Your task to perform on an android device: change the clock display to analog Image 0: 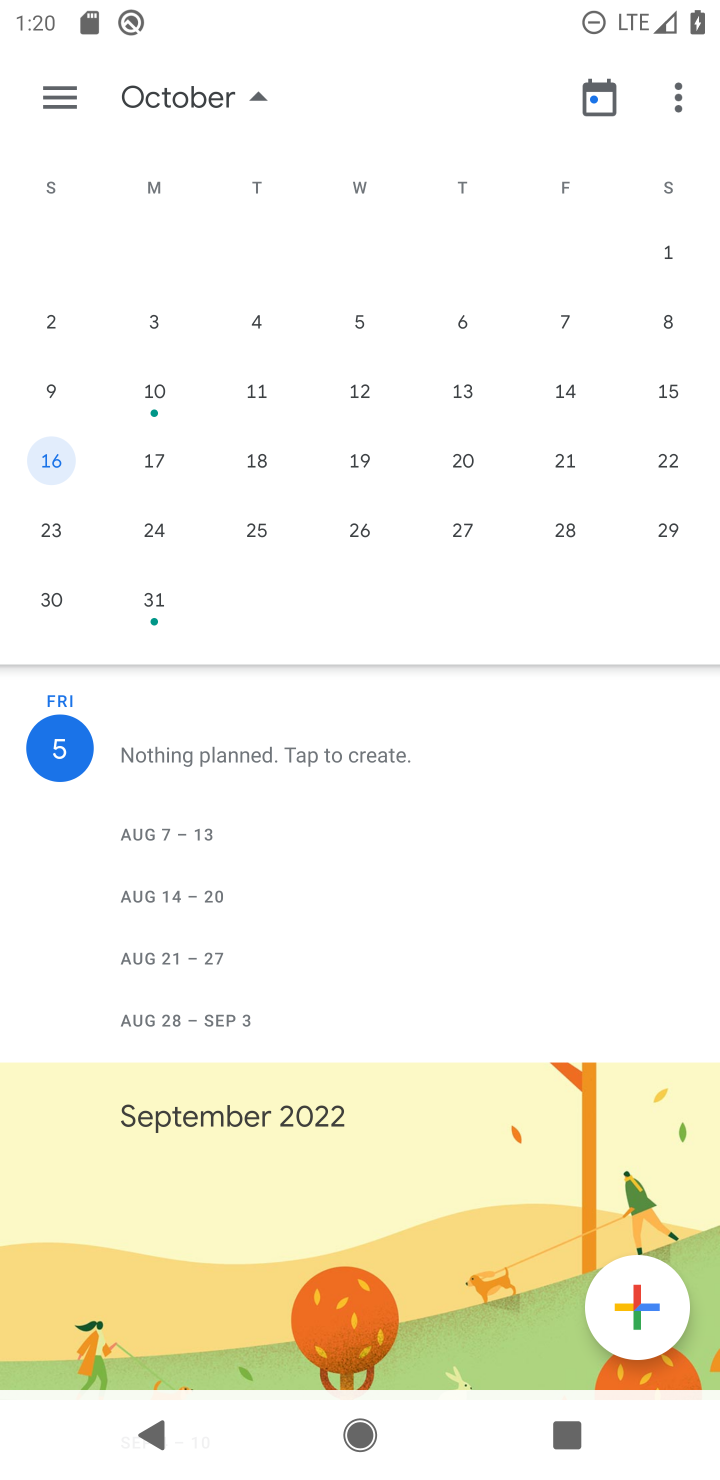
Step 0: press home button
Your task to perform on an android device: change the clock display to analog Image 1: 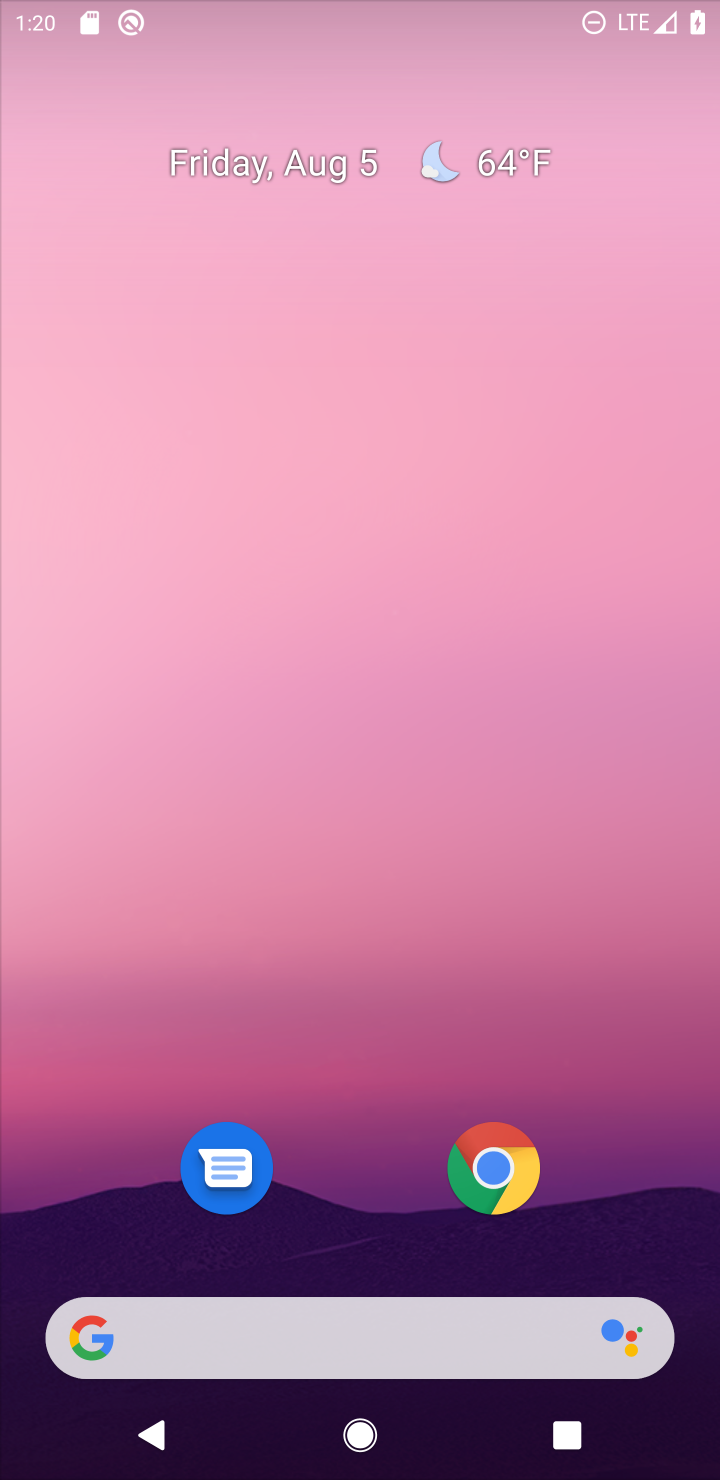
Step 1: drag from (642, 1234) to (300, 70)
Your task to perform on an android device: change the clock display to analog Image 2: 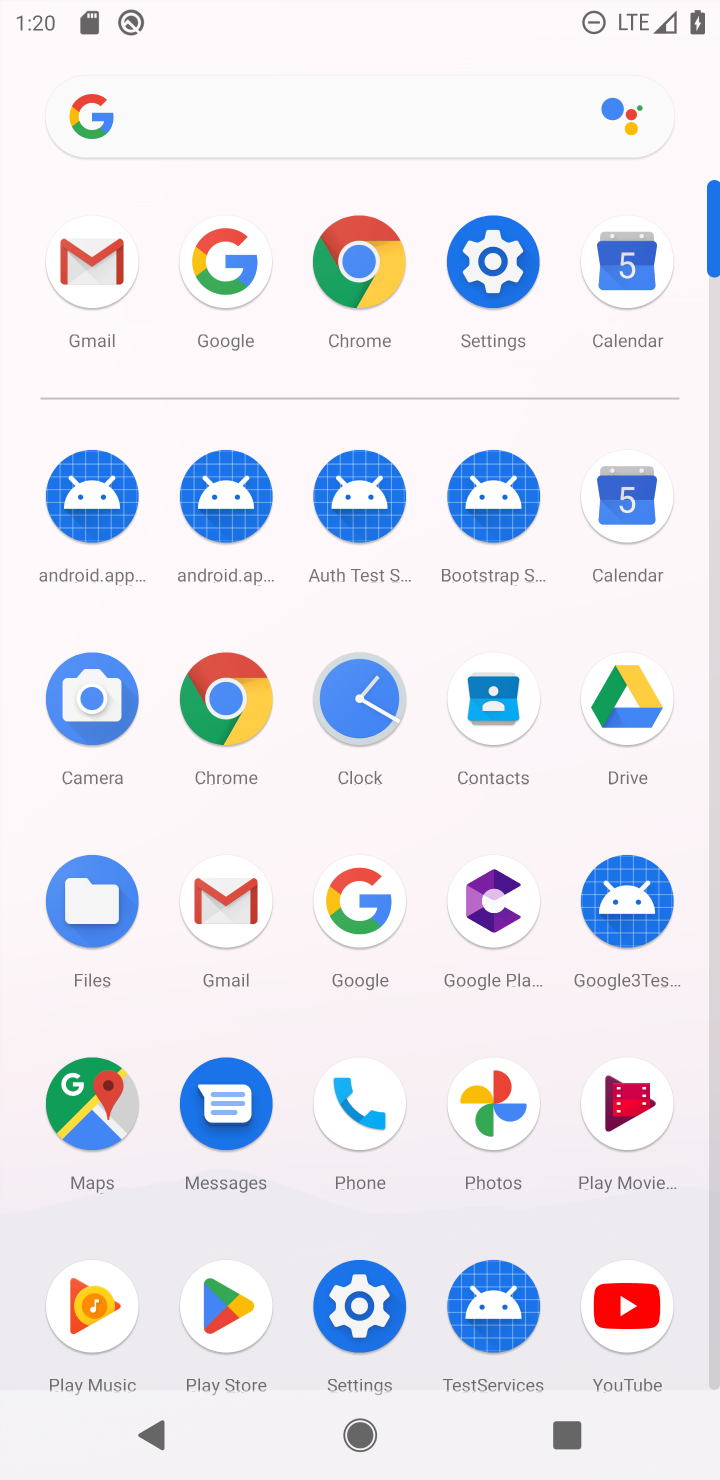
Step 2: click (356, 704)
Your task to perform on an android device: change the clock display to analog Image 3: 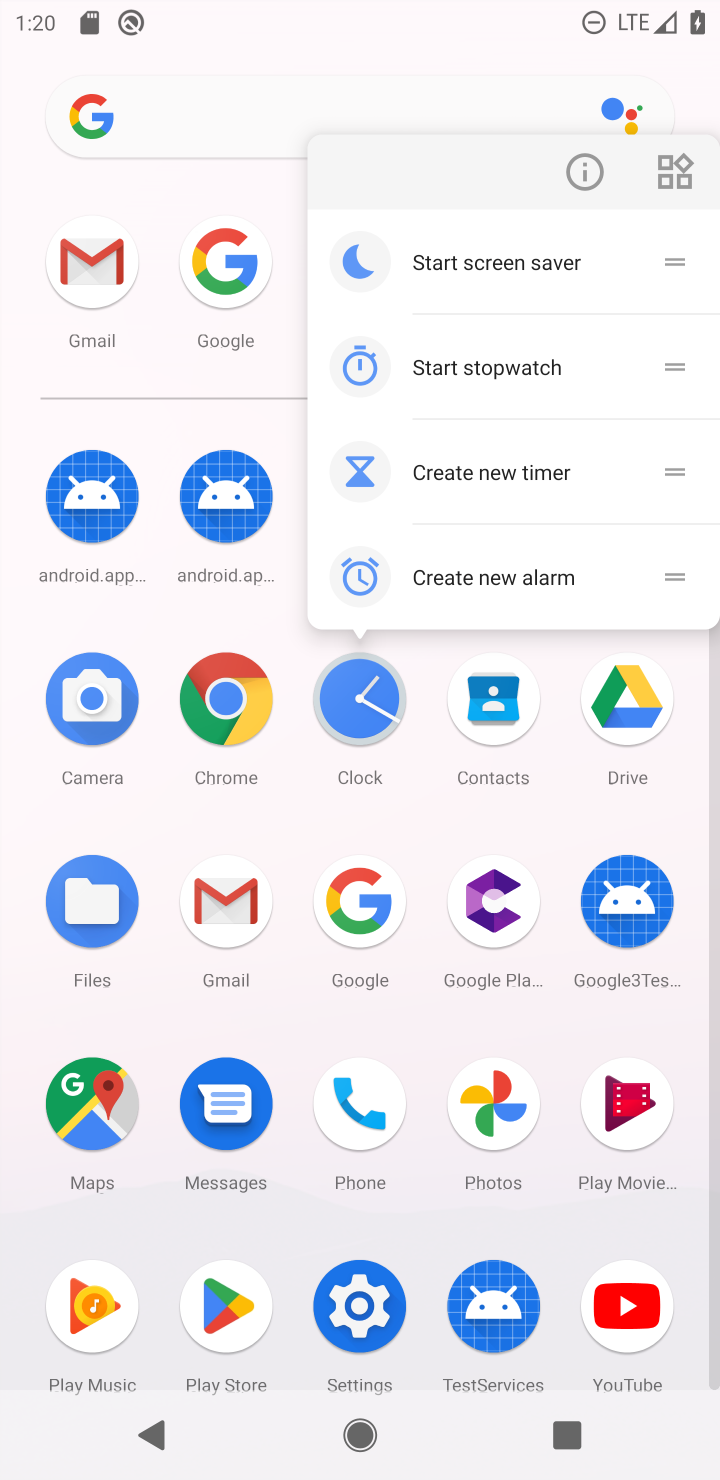
Step 3: click (356, 704)
Your task to perform on an android device: change the clock display to analog Image 4: 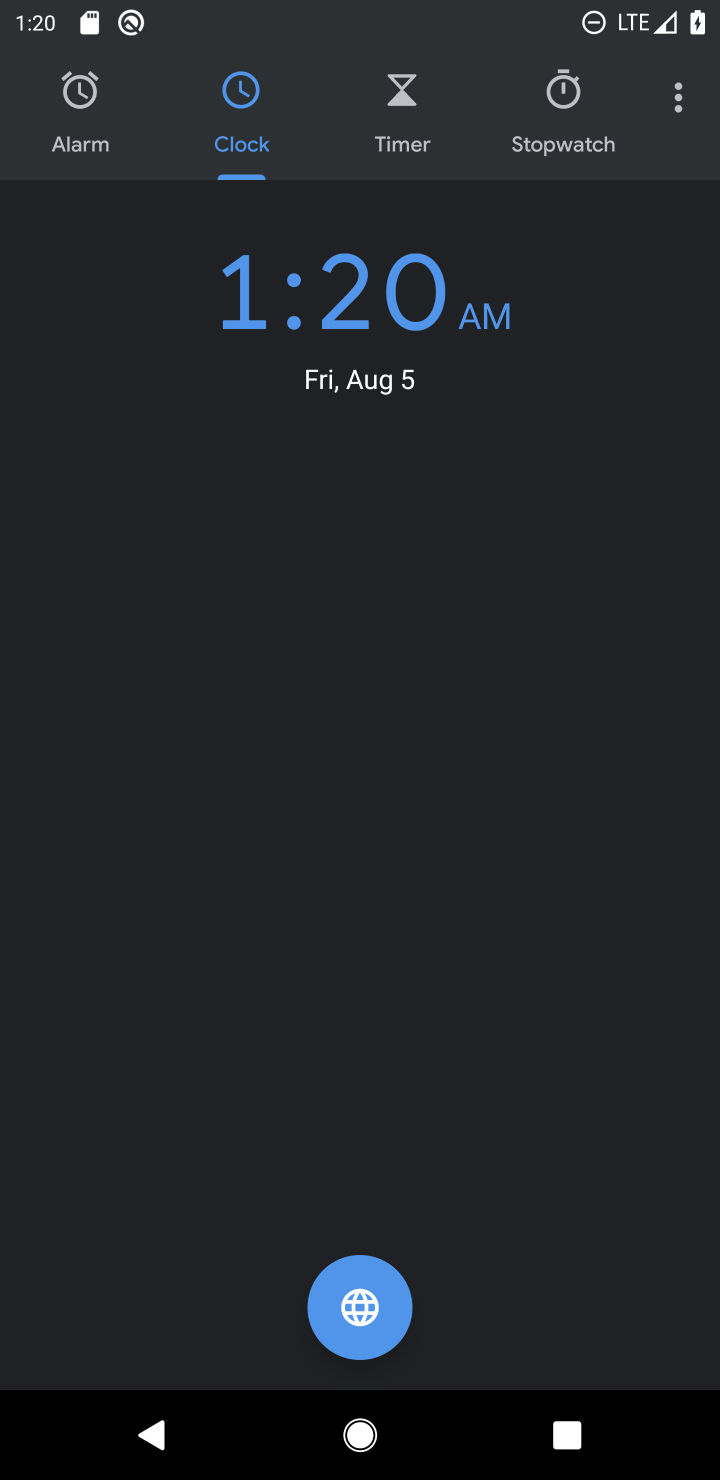
Step 4: click (683, 98)
Your task to perform on an android device: change the clock display to analog Image 5: 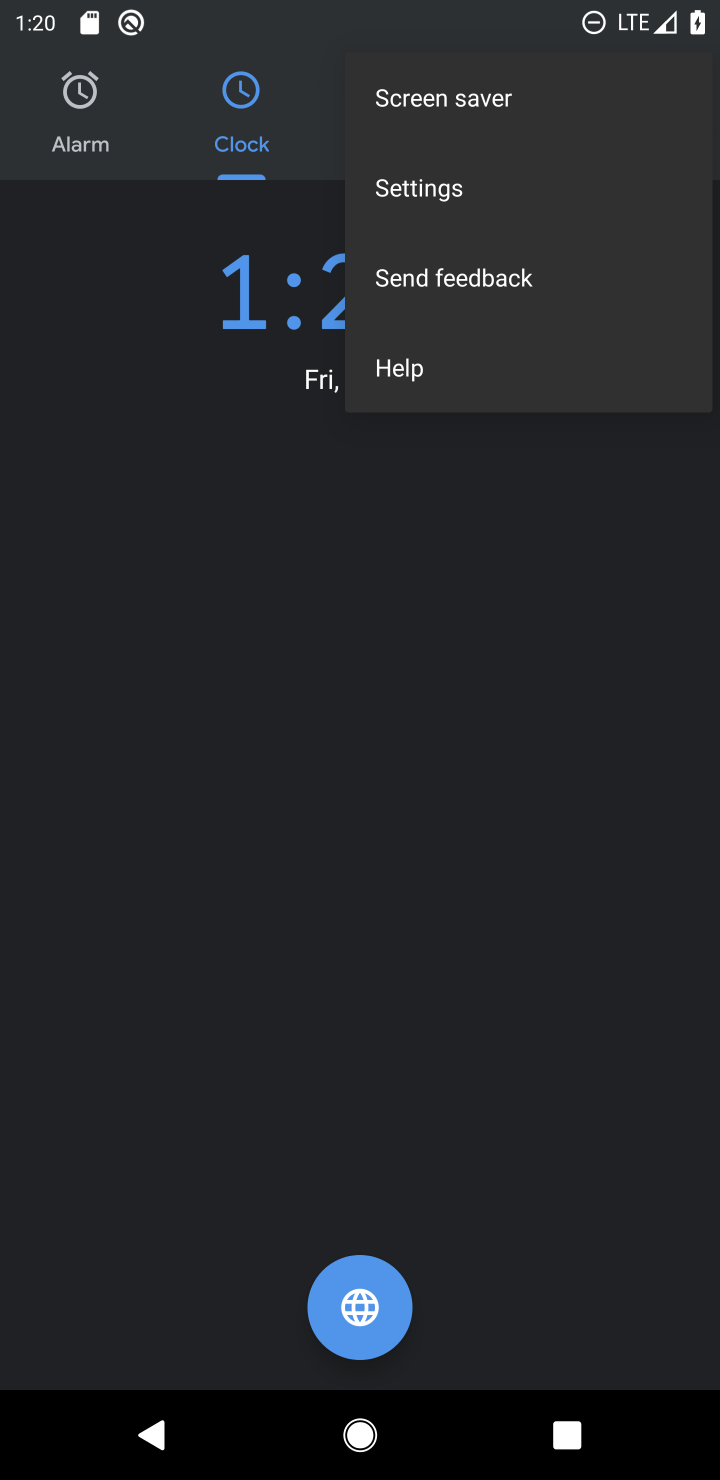
Step 5: click (449, 193)
Your task to perform on an android device: change the clock display to analog Image 6: 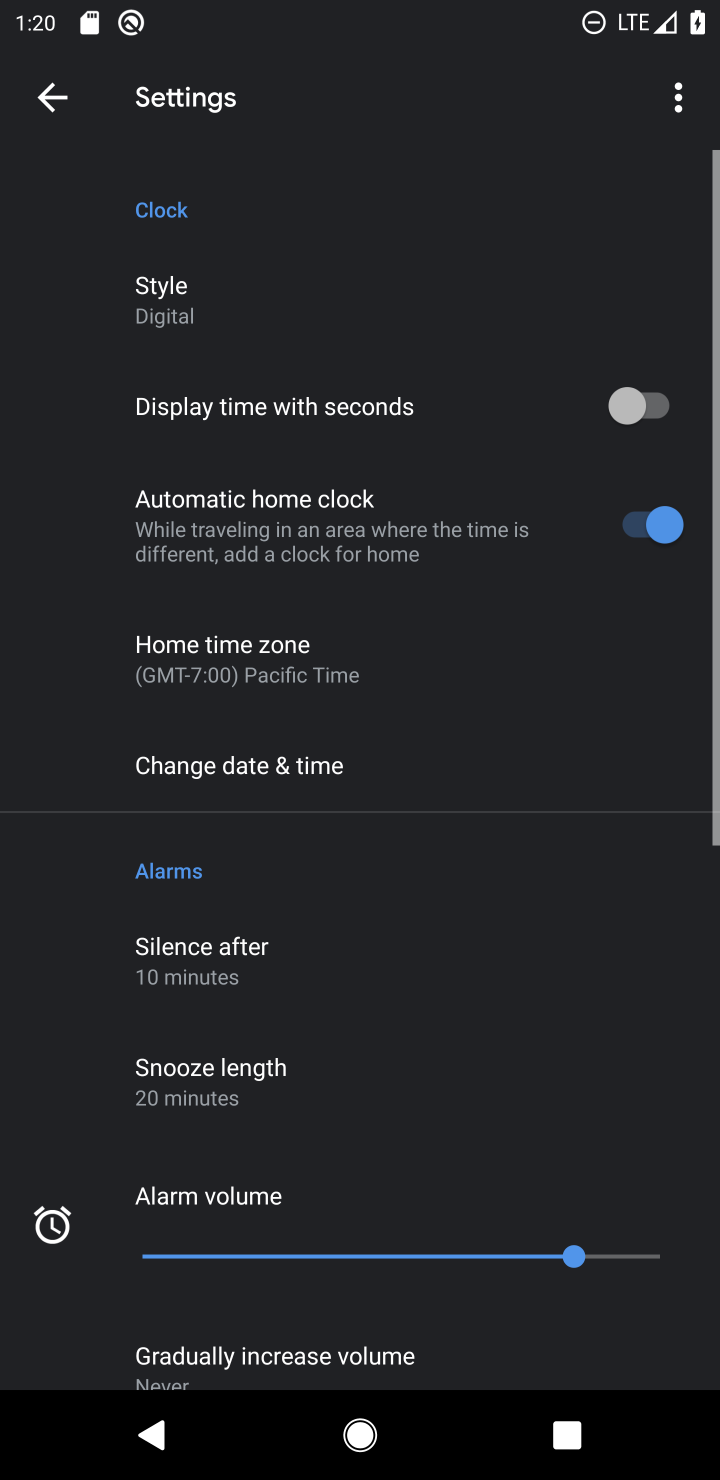
Step 6: click (179, 312)
Your task to perform on an android device: change the clock display to analog Image 7: 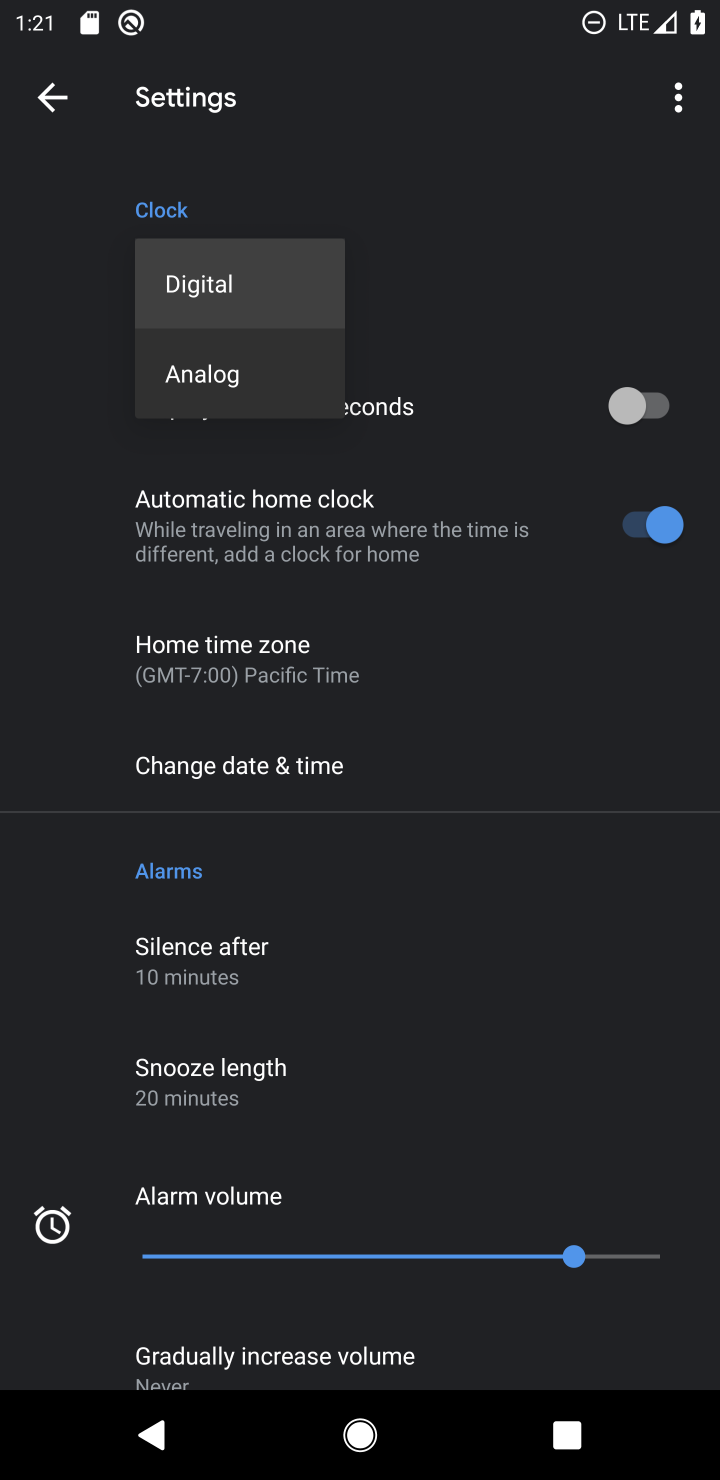
Step 7: click (270, 379)
Your task to perform on an android device: change the clock display to analog Image 8: 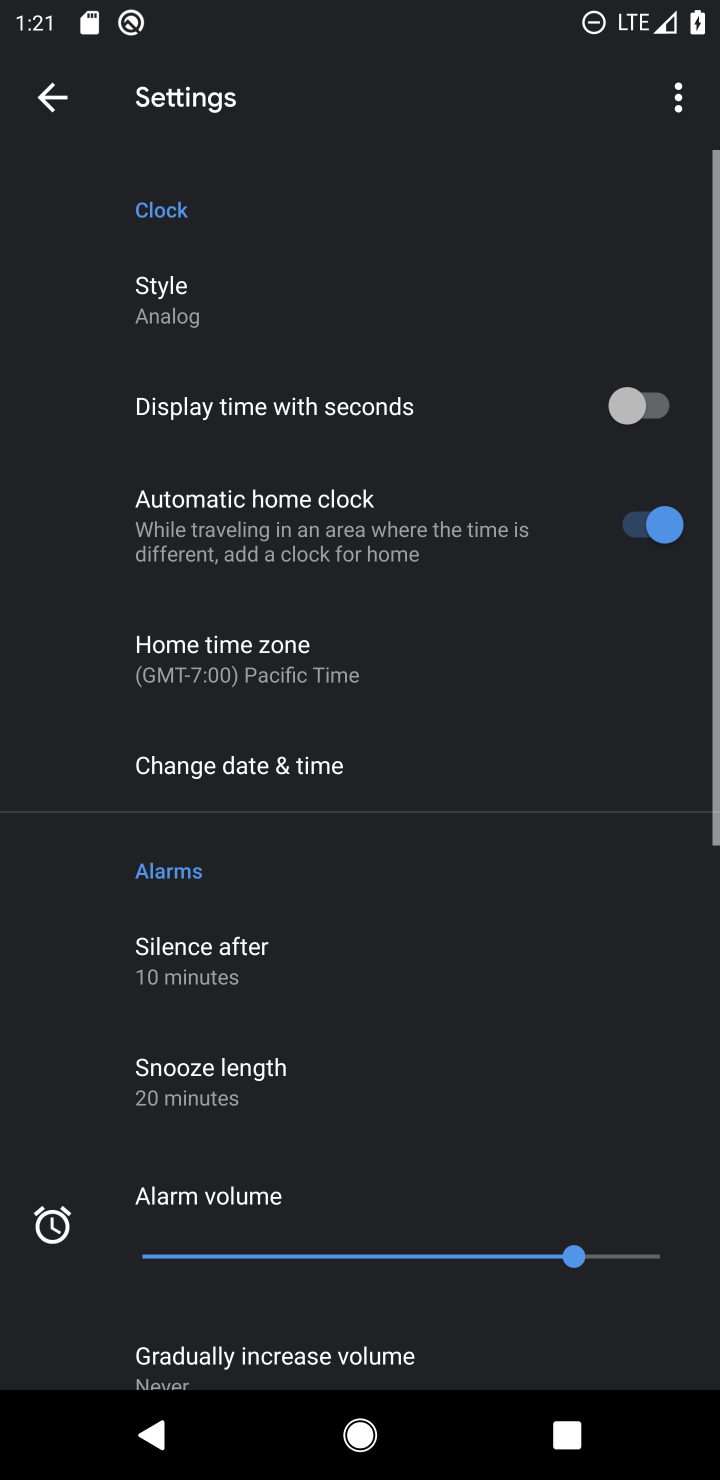
Step 8: task complete